Your task to perform on an android device: open app "Duolingo: language lessons" Image 0: 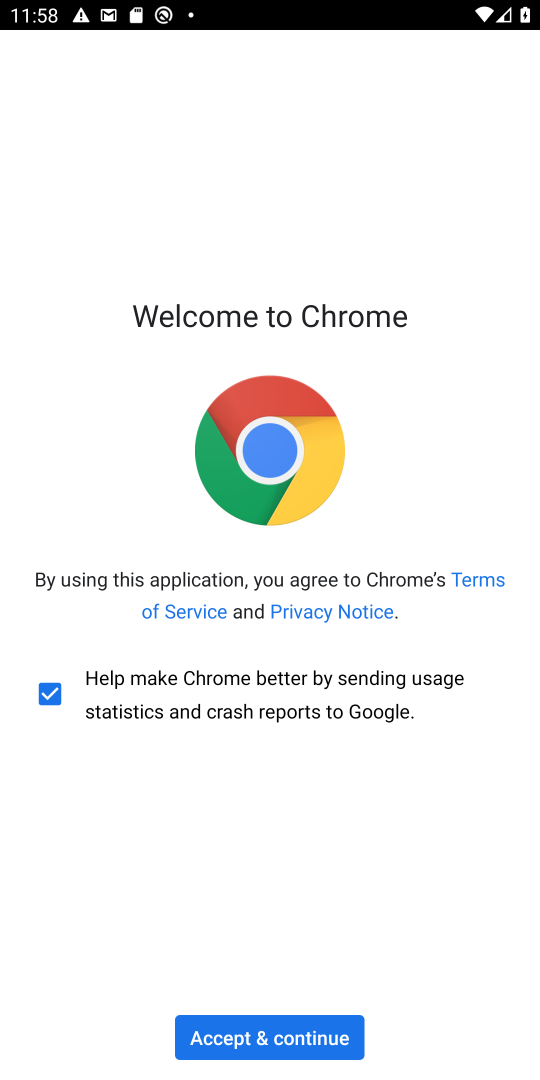
Step 0: press home button
Your task to perform on an android device: open app "Duolingo: language lessons" Image 1: 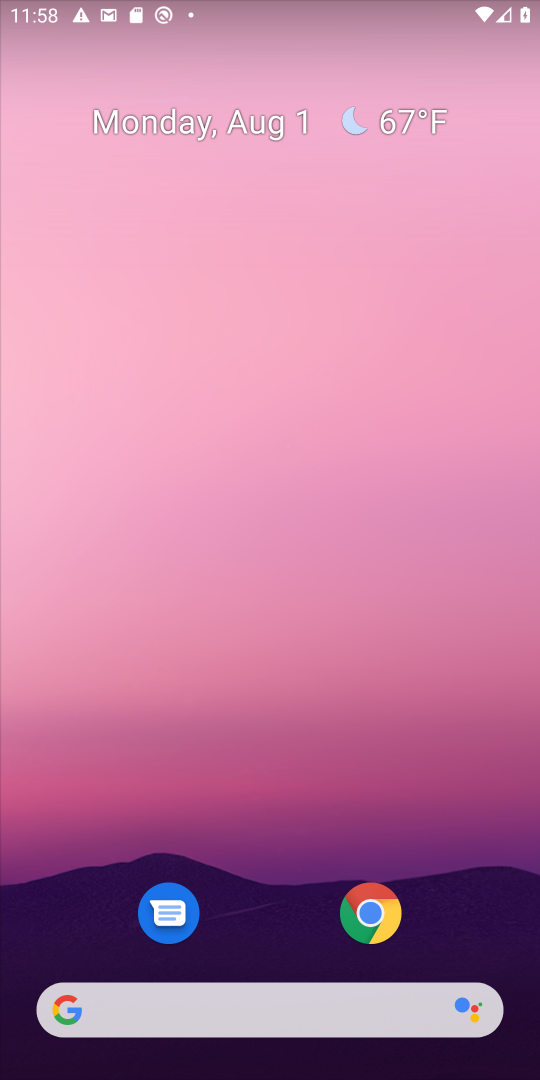
Step 1: drag from (523, 789) to (428, 20)
Your task to perform on an android device: open app "Duolingo: language lessons" Image 2: 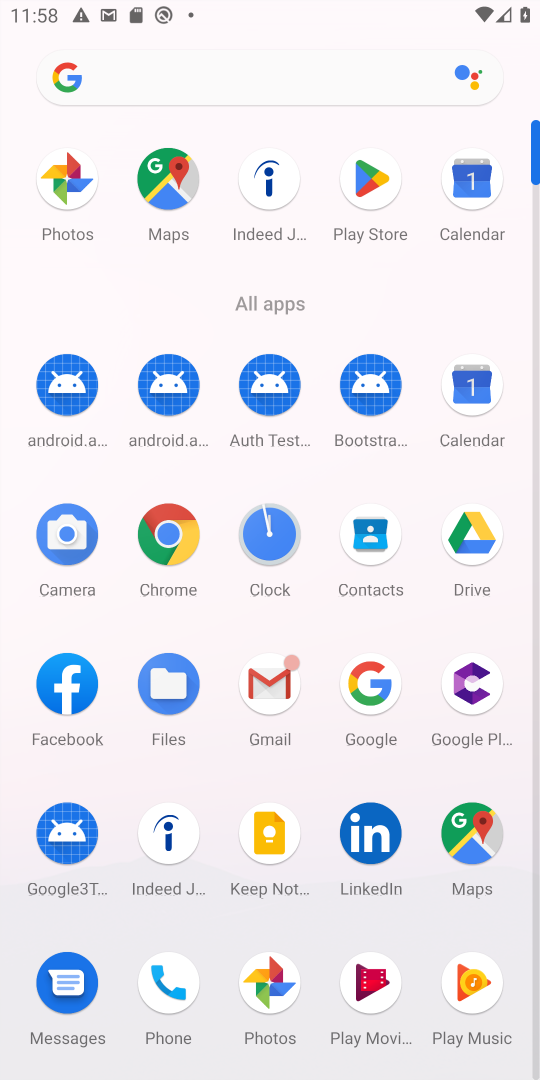
Step 2: drag from (221, 940) to (220, 525)
Your task to perform on an android device: open app "Duolingo: language lessons" Image 3: 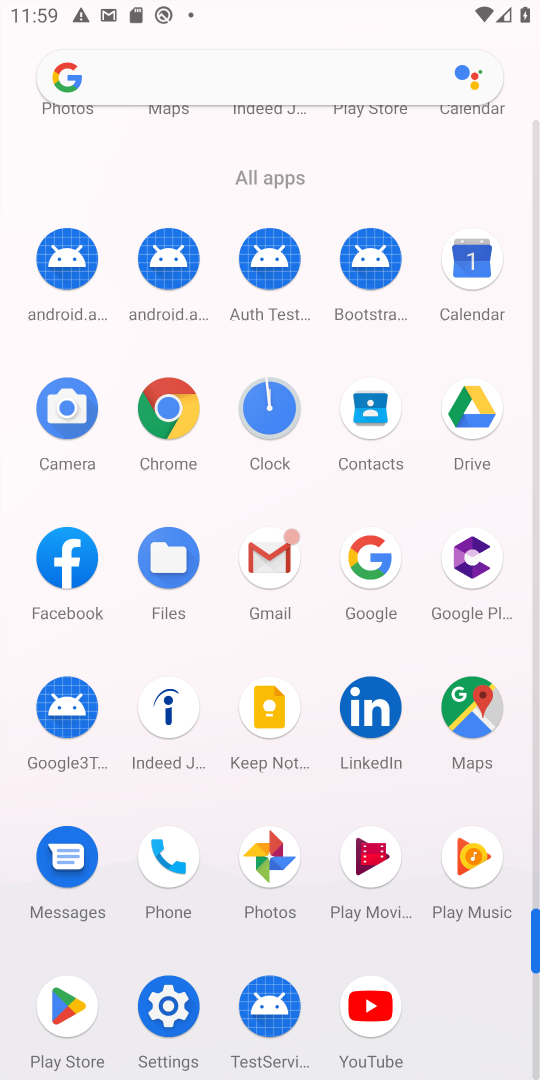
Step 3: click (64, 987)
Your task to perform on an android device: open app "Duolingo: language lessons" Image 4: 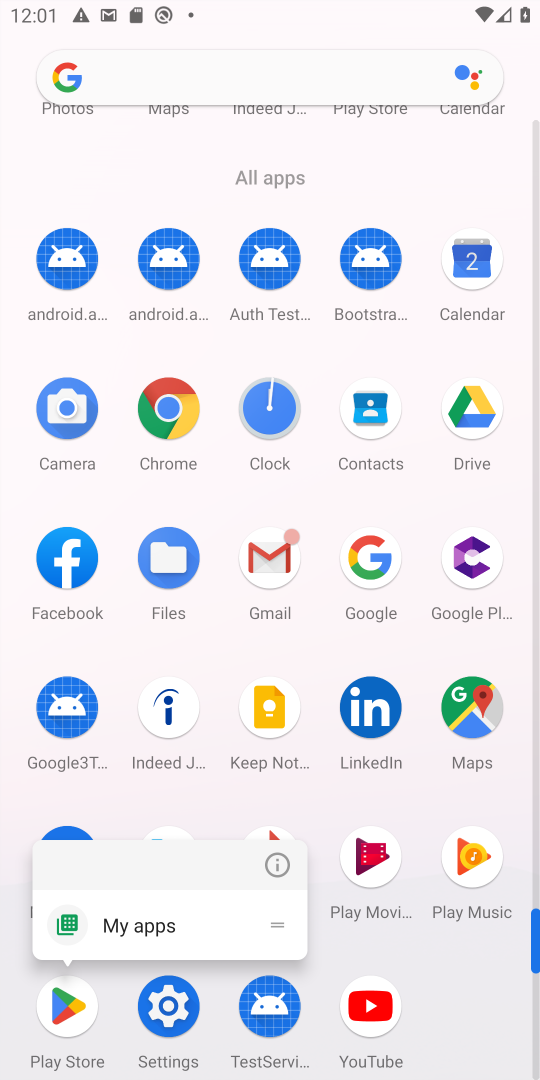
Step 4: click (78, 1006)
Your task to perform on an android device: open app "Duolingo: language lessons" Image 5: 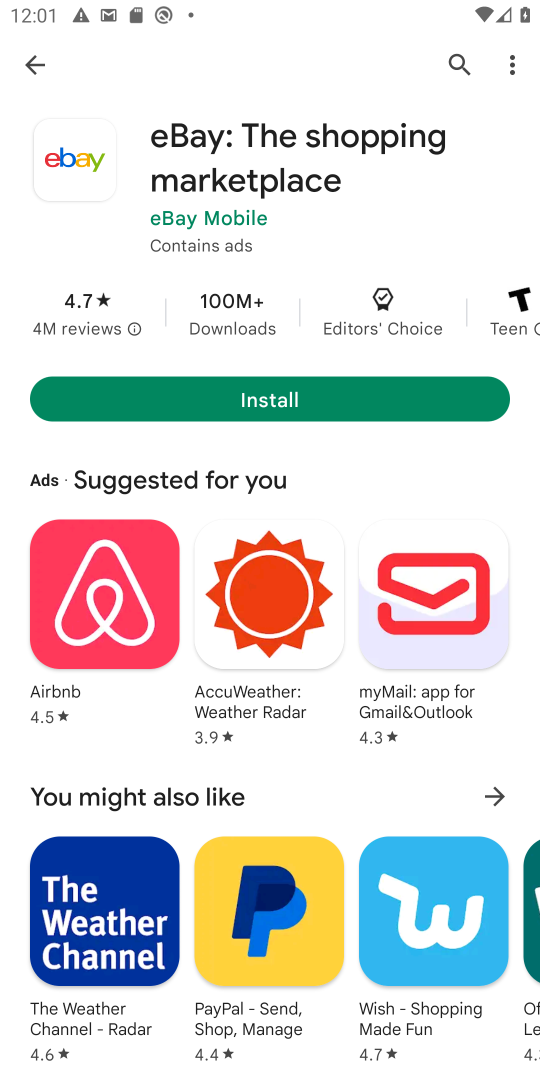
Step 5: click (459, 63)
Your task to perform on an android device: open app "Duolingo: language lessons" Image 6: 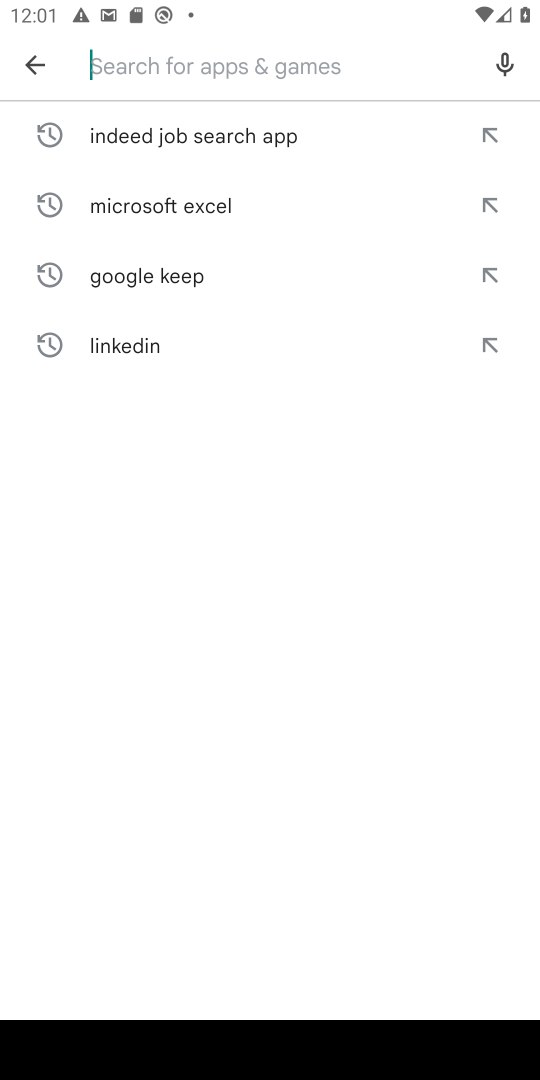
Step 6: type "Duolingo: language lessons"
Your task to perform on an android device: open app "Duolingo: language lessons" Image 7: 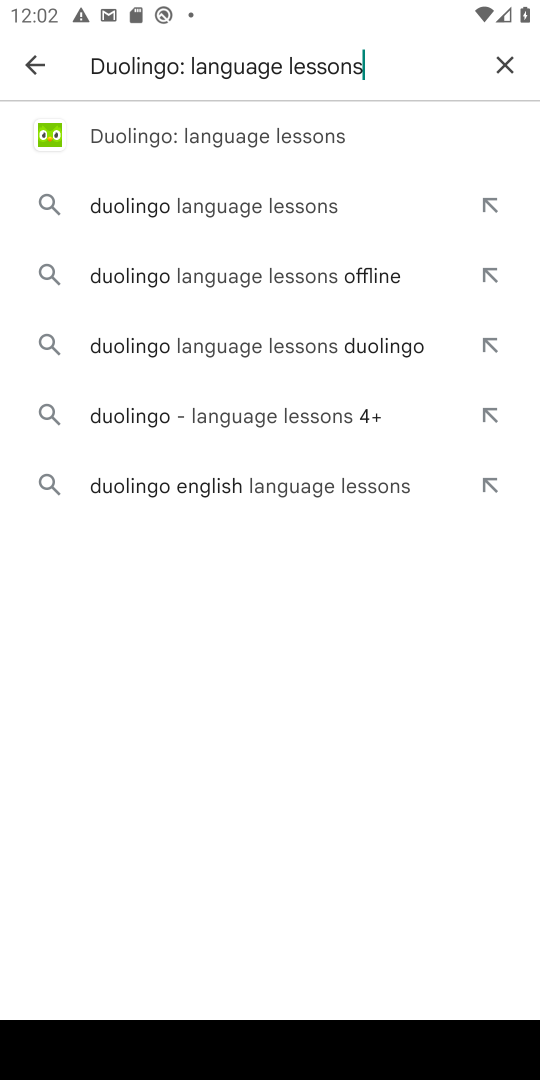
Step 7: click (232, 136)
Your task to perform on an android device: open app "Duolingo: language lessons" Image 8: 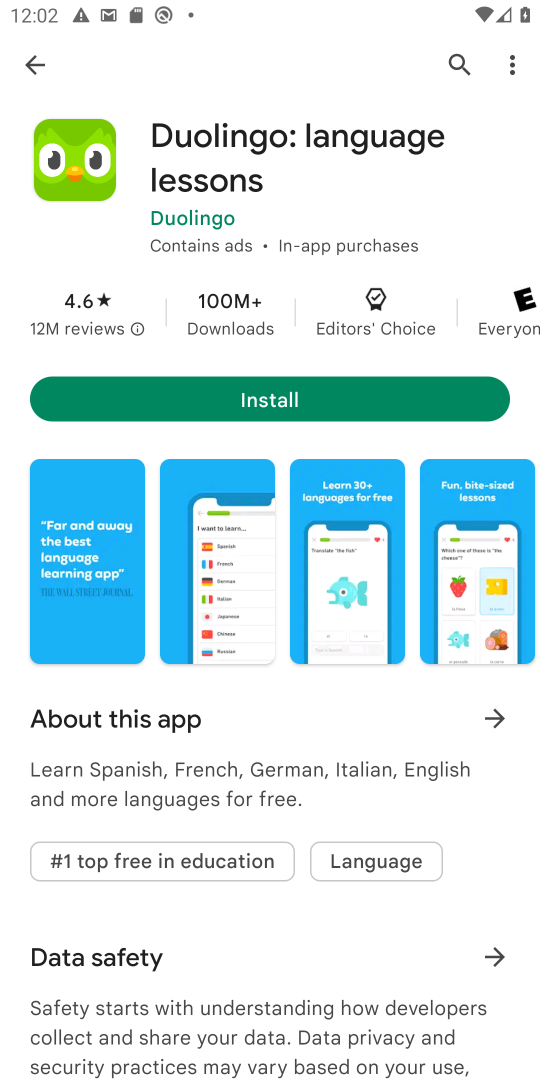
Step 8: task complete